Your task to perform on an android device: change the clock display to analog Image 0: 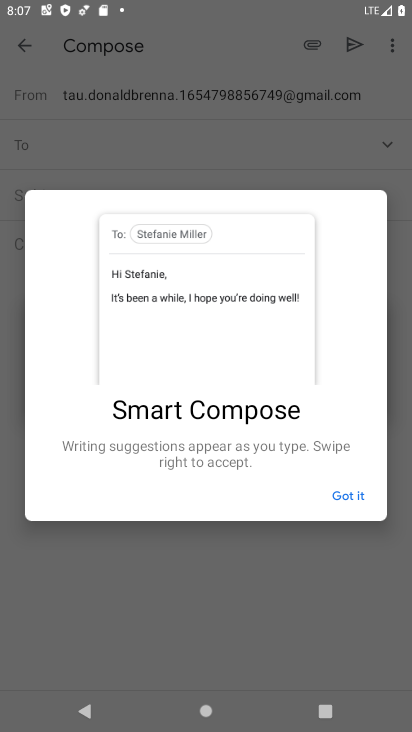
Step 0: press home button
Your task to perform on an android device: change the clock display to analog Image 1: 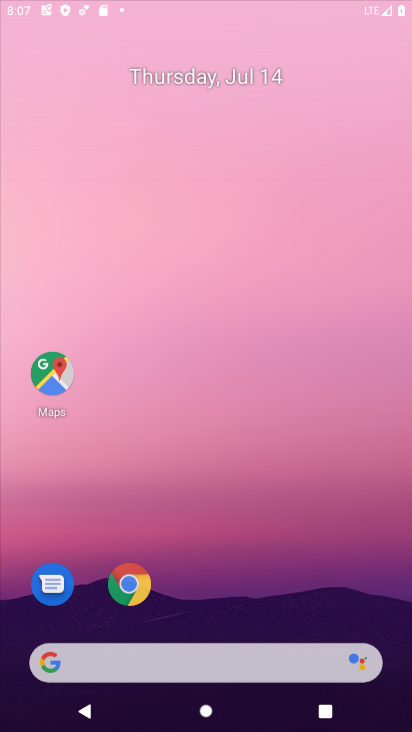
Step 1: drag from (384, 650) to (266, 2)
Your task to perform on an android device: change the clock display to analog Image 2: 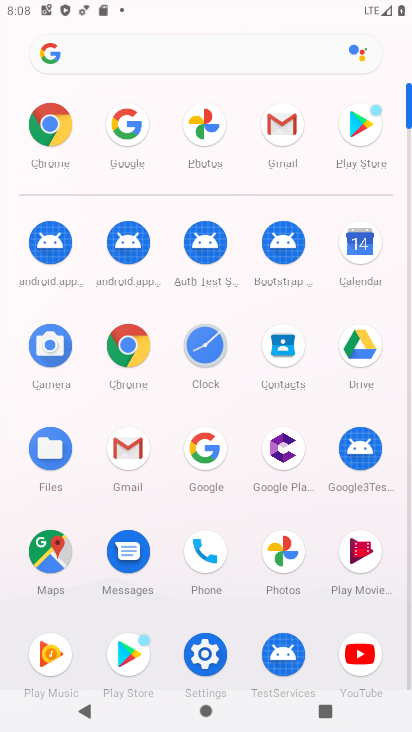
Step 2: click (202, 347)
Your task to perform on an android device: change the clock display to analog Image 3: 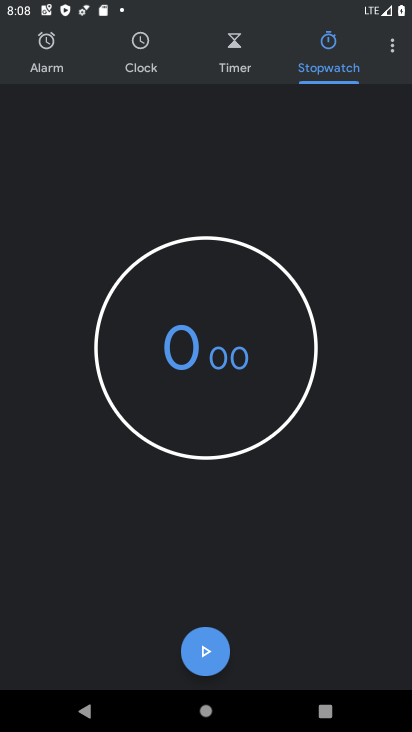
Step 3: click (392, 62)
Your task to perform on an android device: change the clock display to analog Image 4: 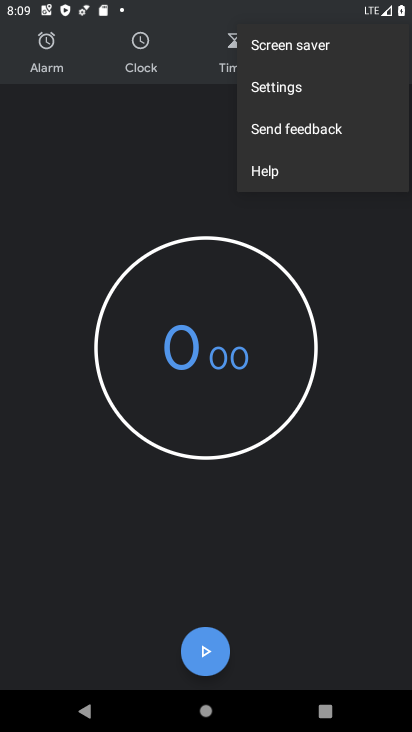
Step 4: click (288, 81)
Your task to perform on an android device: change the clock display to analog Image 5: 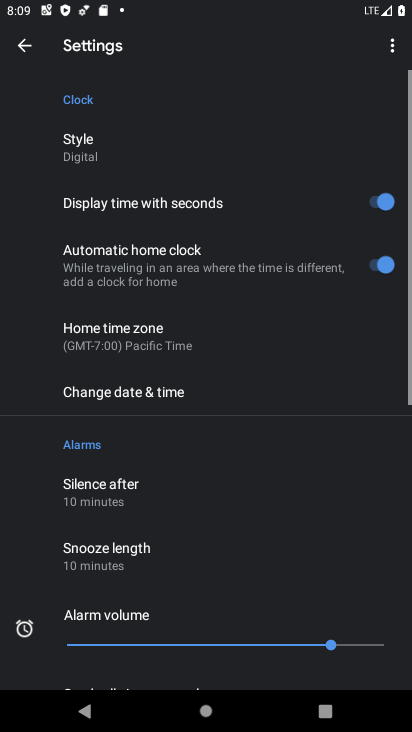
Step 5: click (59, 138)
Your task to perform on an android device: change the clock display to analog Image 6: 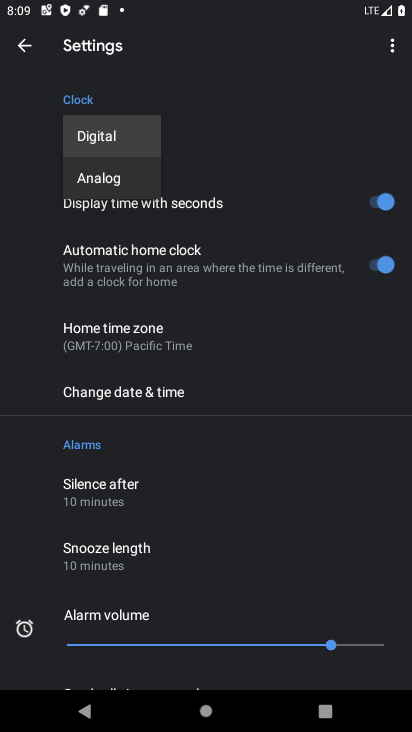
Step 6: click (123, 190)
Your task to perform on an android device: change the clock display to analog Image 7: 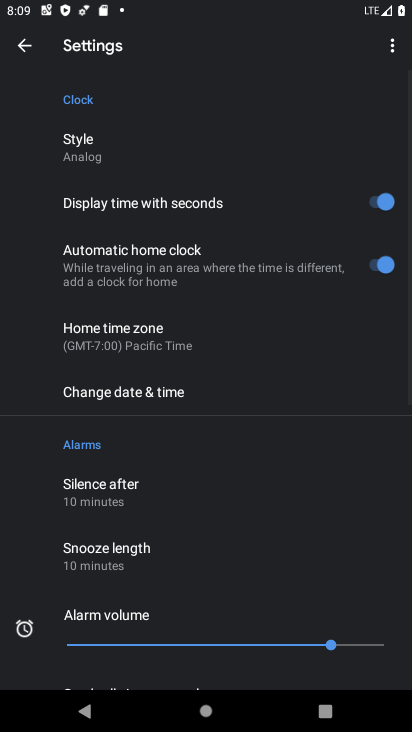
Step 7: task complete